Your task to perform on an android device: refresh tabs in the chrome app Image 0: 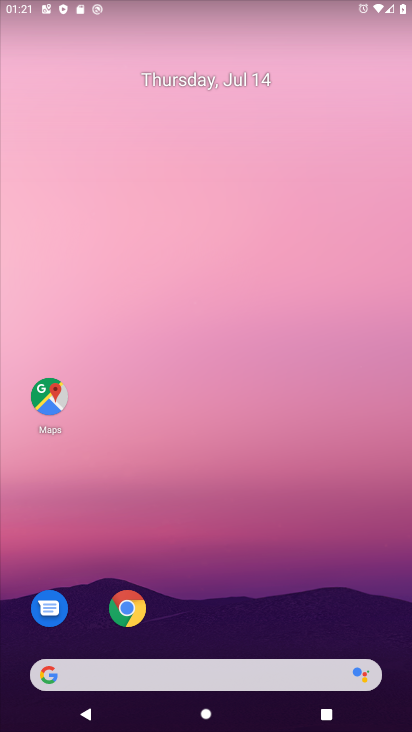
Step 0: press home button
Your task to perform on an android device: refresh tabs in the chrome app Image 1: 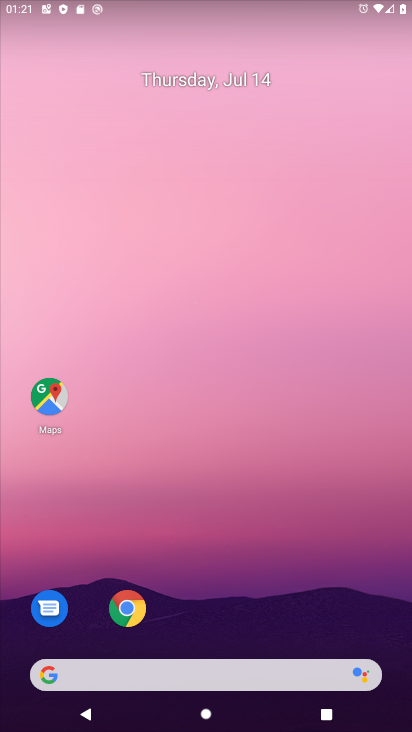
Step 1: drag from (382, 548) to (350, 0)
Your task to perform on an android device: refresh tabs in the chrome app Image 2: 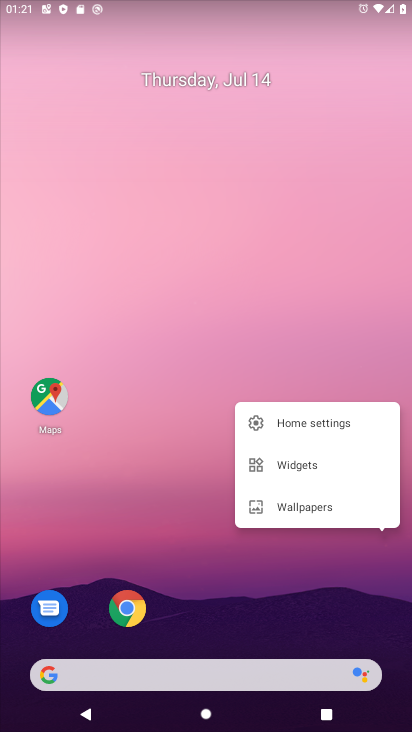
Step 2: click (257, 297)
Your task to perform on an android device: refresh tabs in the chrome app Image 3: 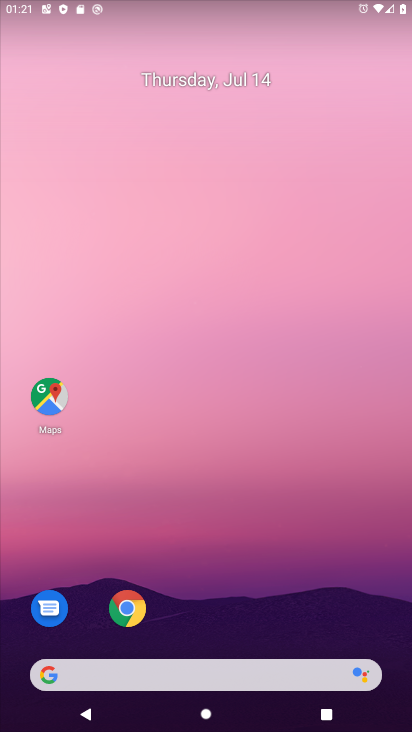
Step 3: drag from (366, 650) to (224, 78)
Your task to perform on an android device: refresh tabs in the chrome app Image 4: 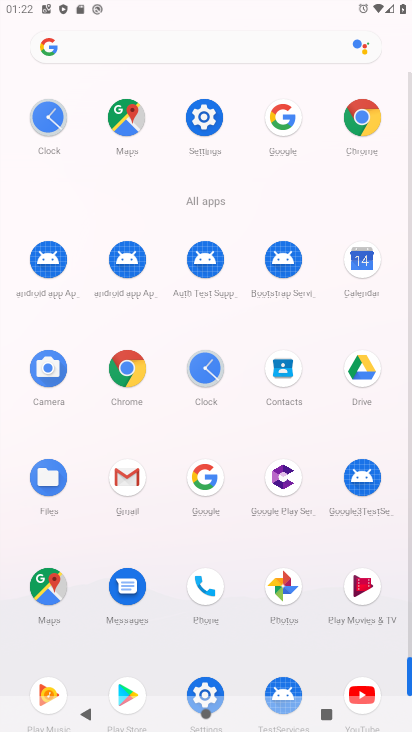
Step 4: click (367, 113)
Your task to perform on an android device: refresh tabs in the chrome app Image 5: 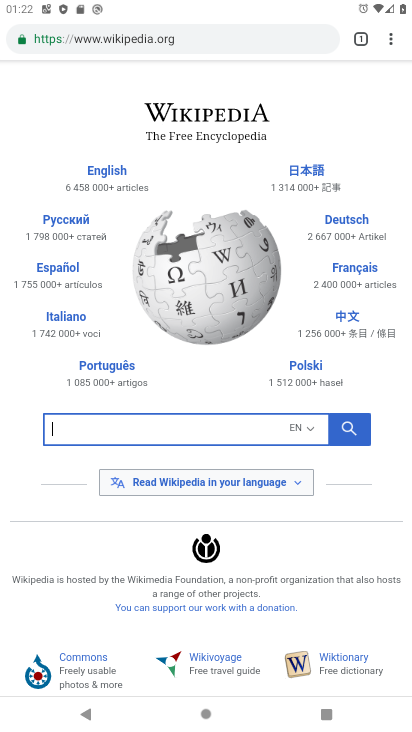
Step 5: click (396, 41)
Your task to perform on an android device: refresh tabs in the chrome app Image 6: 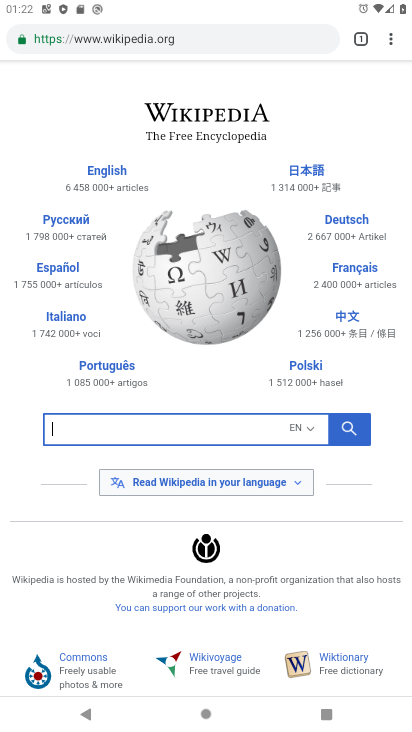
Step 6: task complete